Your task to perform on an android device: Search for seafood restaurants on Google Maps Image 0: 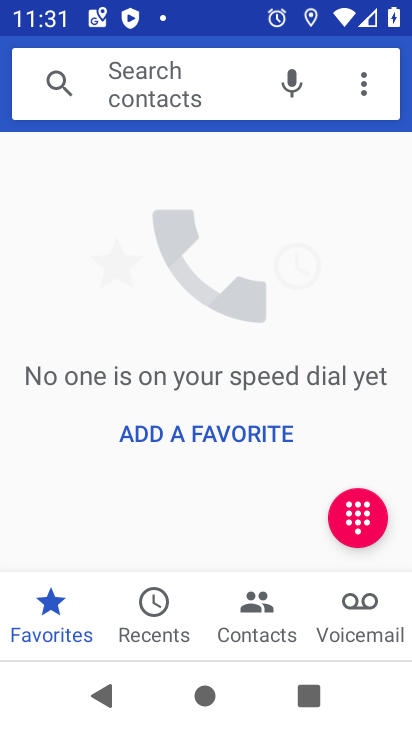
Step 0: press home button
Your task to perform on an android device: Search for seafood restaurants on Google Maps Image 1: 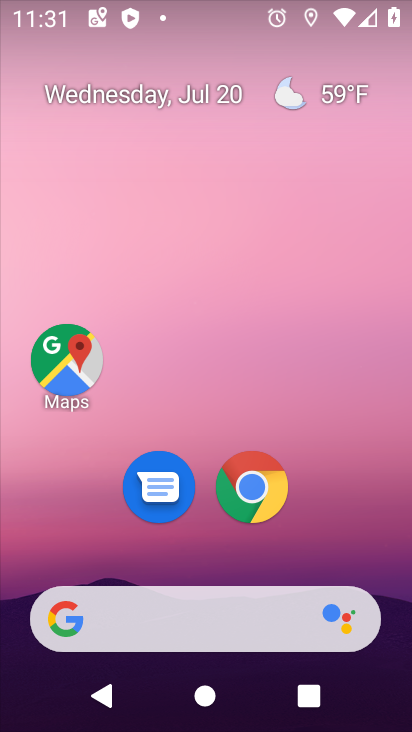
Step 1: drag from (360, 549) to (387, 80)
Your task to perform on an android device: Search for seafood restaurants on Google Maps Image 2: 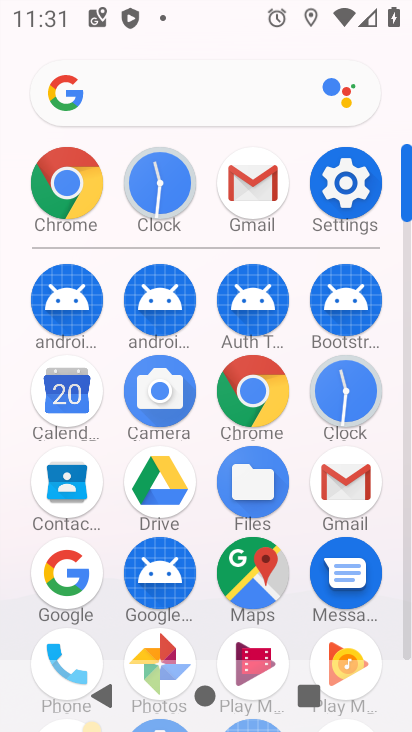
Step 2: click (260, 564)
Your task to perform on an android device: Search for seafood restaurants on Google Maps Image 3: 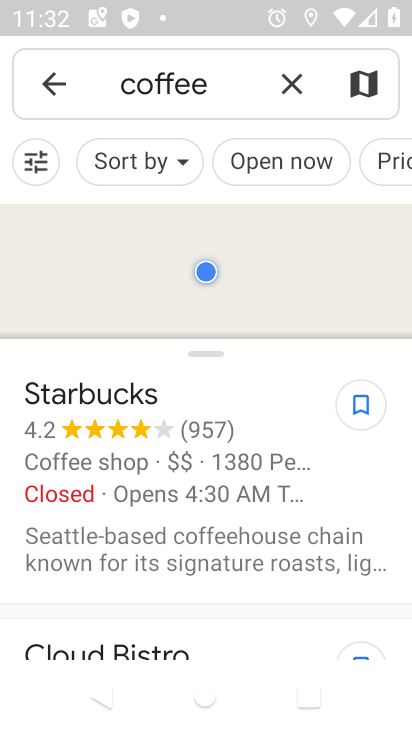
Step 3: press back button
Your task to perform on an android device: Search for seafood restaurants on Google Maps Image 4: 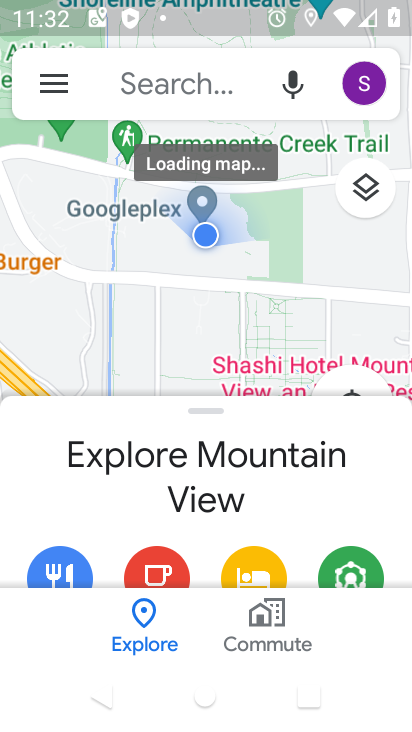
Step 4: click (207, 83)
Your task to perform on an android device: Search for seafood restaurants on Google Maps Image 5: 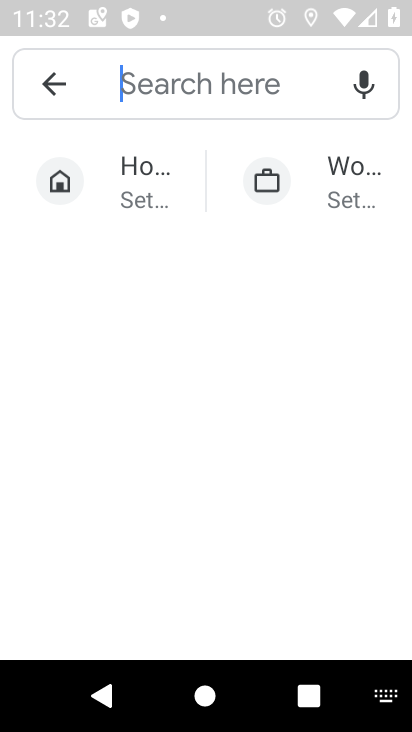
Step 5: type "seafood restaurants"
Your task to perform on an android device: Search for seafood restaurants on Google Maps Image 6: 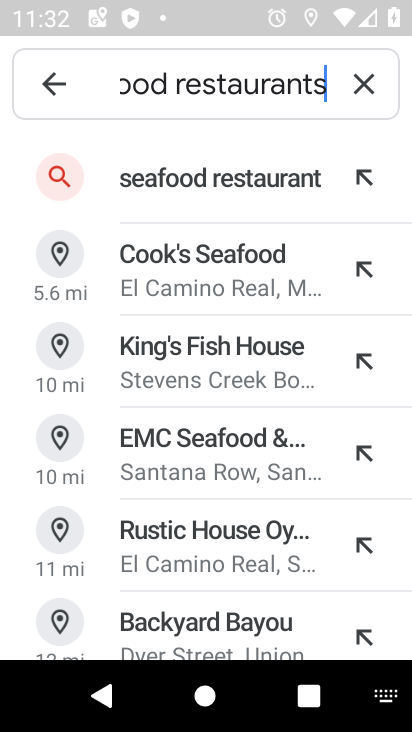
Step 6: click (268, 178)
Your task to perform on an android device: Search for seafood restaurants on Google Maps Image 7: 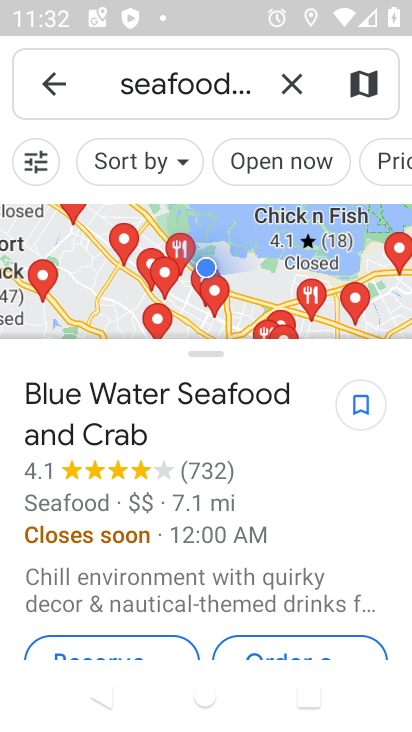
Step 7: task complete